Your task to perform on an android device: turn on the 24-hour format for clock Image 0: 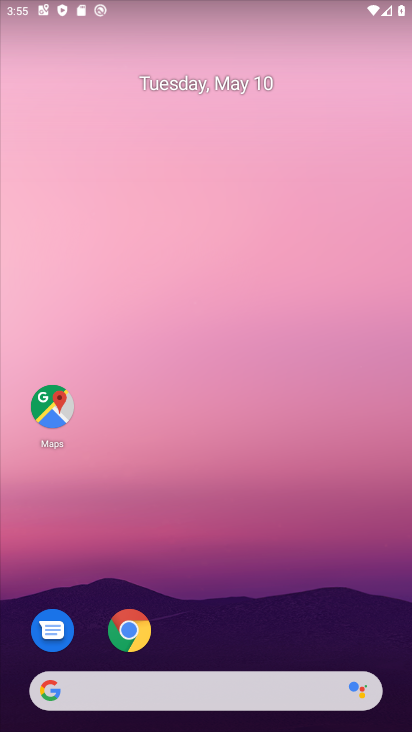
Step 0: drag from (225, 639) to (164, 274)
Your task to perform on an android device: turn on the 24-hour format for clock Image 1: 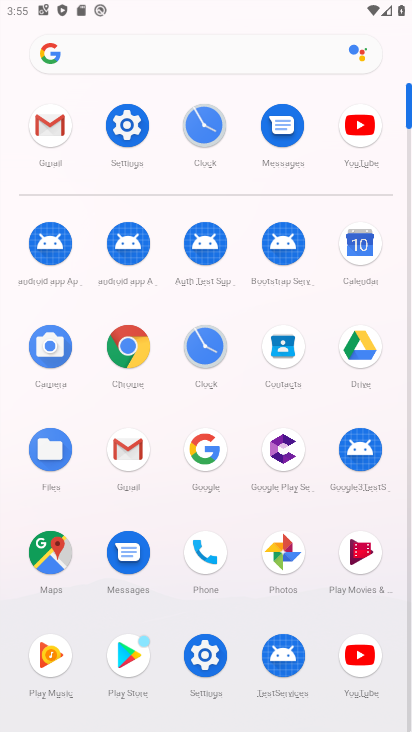
Step 1: click (213, 133)
Your task to perform on an android device: turn on the 24-hour format for clock Image 2: 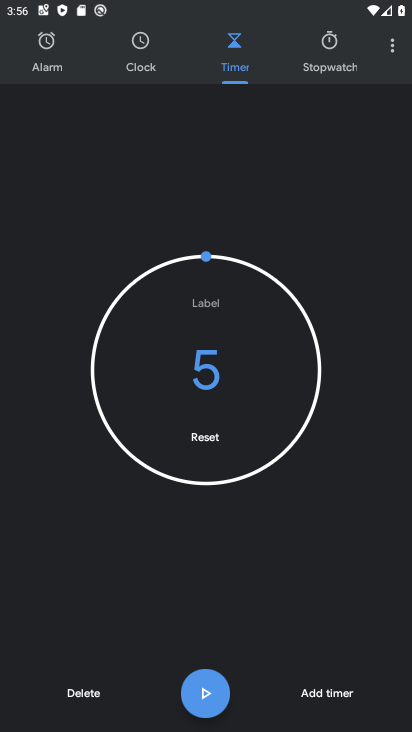
Step 2: click (412, 45)
Your task to perform on an android device: turn on the 24-hour format for clock Image 3: 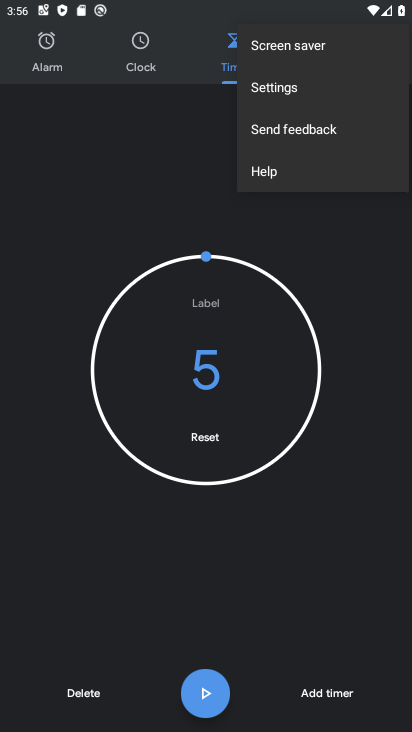
Step 3: click (332, 86)
Your task to perform on an android device: turn on the 24-hour format for clock Image 4: 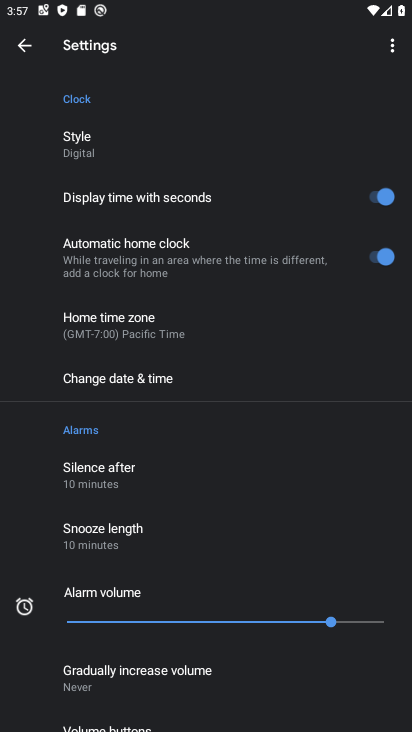
Step 4: click (192, 372)
Your task to perform on an android device: turn on the 24-hour format for clock Image 5: 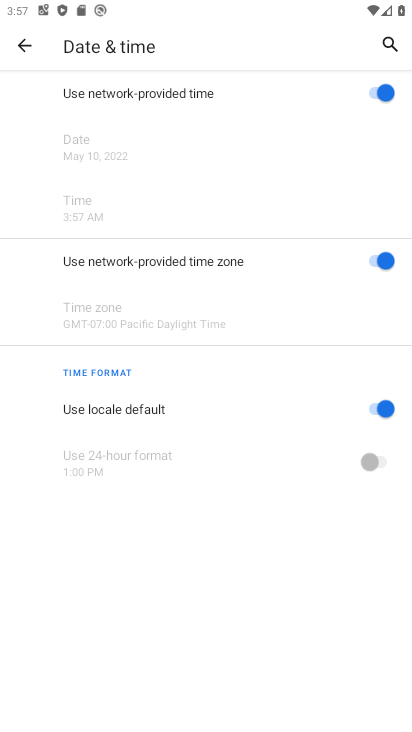
Step 5: click (377, 402)
Your task to perform on an android device: turn on the 24-hour format for clock Image 6: 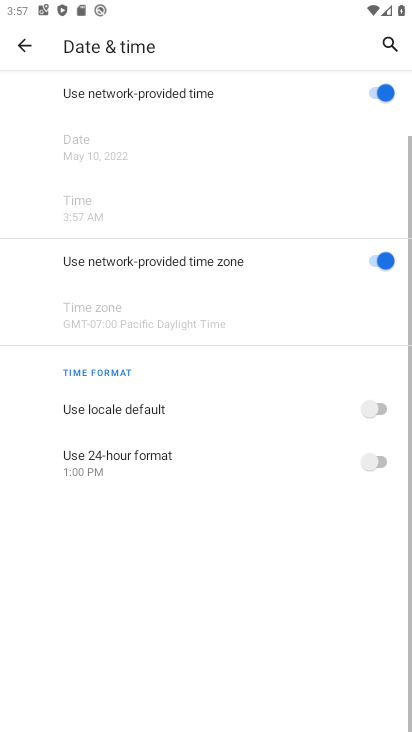
Step 6: click (373, 457)
Your task to perform on an android device: turn on the 24-hour format for clock Image 7: 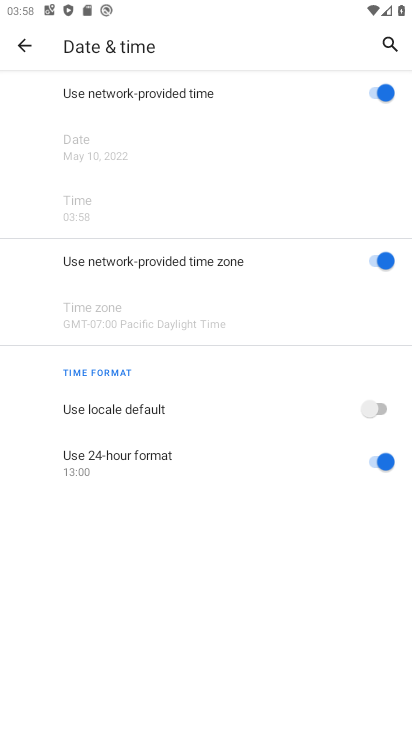
Step 7: task complete